Your task to perform on an android device: check storage Image 0: 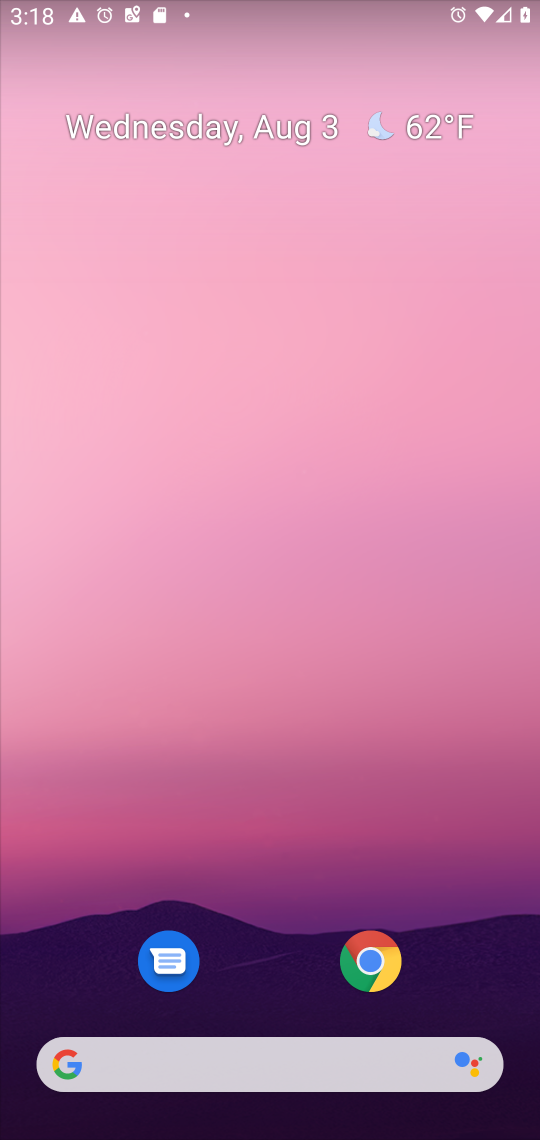
Step 0: drag from (245, 1007) to (283, 69)
Your task to perform on an android device: check storage Image 1: 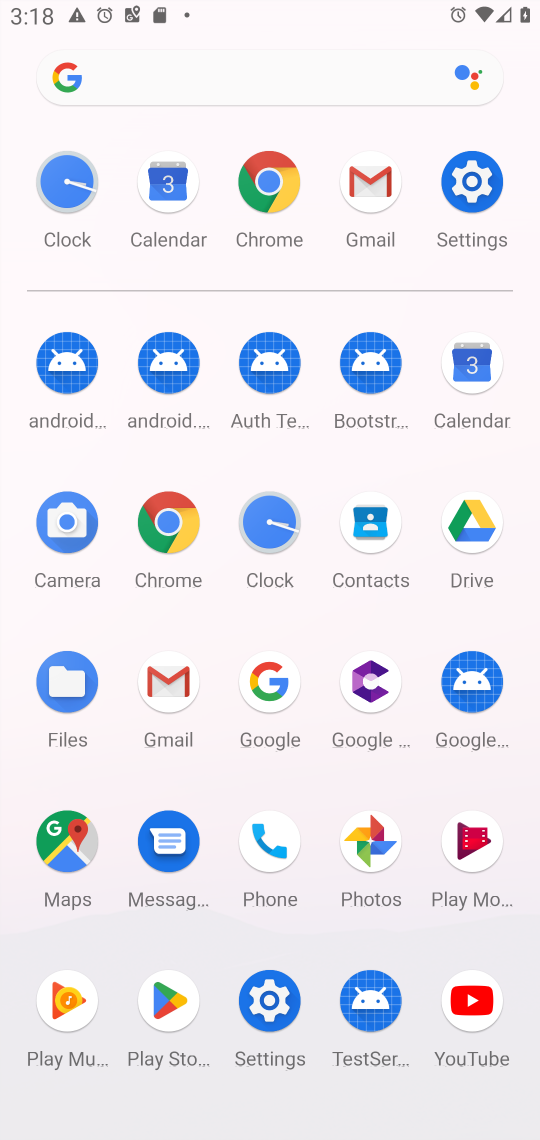
Step 1: click (467, 195)
Your task to perform on an android device: check storage Image 2: 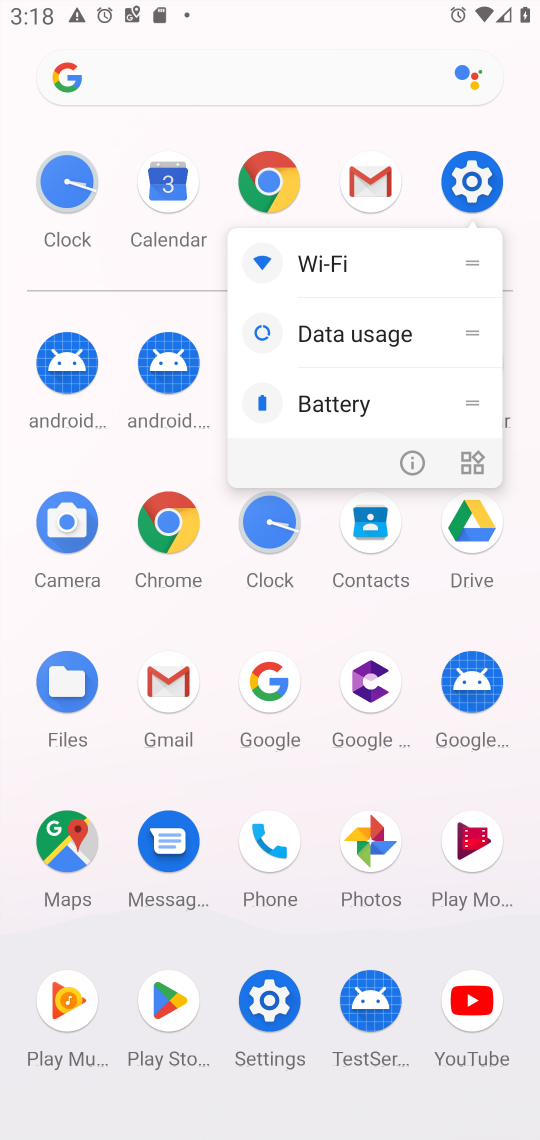
Step 2: click (467, 192)
Your task to perform on an android device: check storage Image 3: 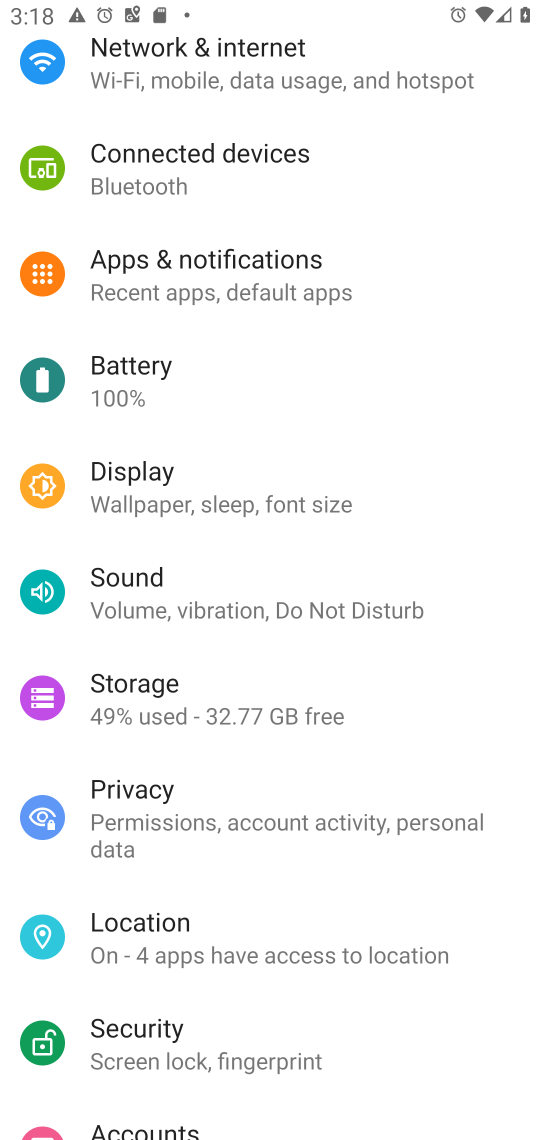
Step 3: click (125, 707)
Your task to perform on an android device: check storage Image 4: 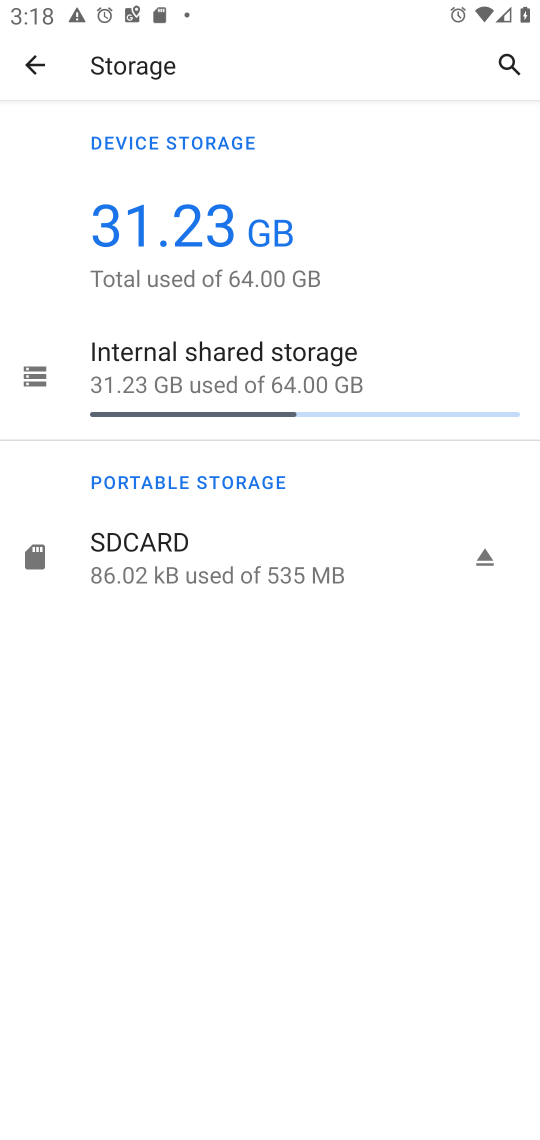
Step 4: task complete